Your task to perform on an android device: toggle improve location accuracy Image 0: 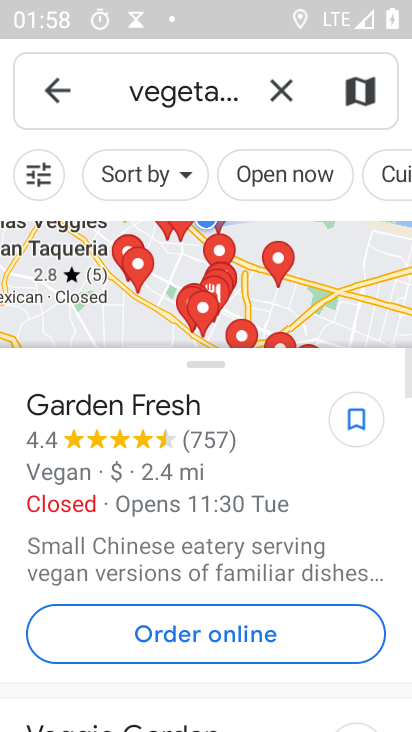
Step 0: press home button
Your task to perform on an android device: toggle improve location accuracy Image 1: 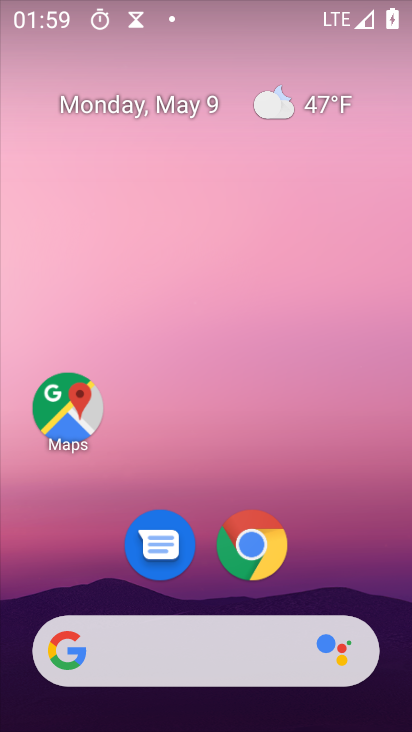
Step 1: drag from (259, 679) to (283, 29)
Your task to perform on an android device: toggle improve location accuracy Image 2: 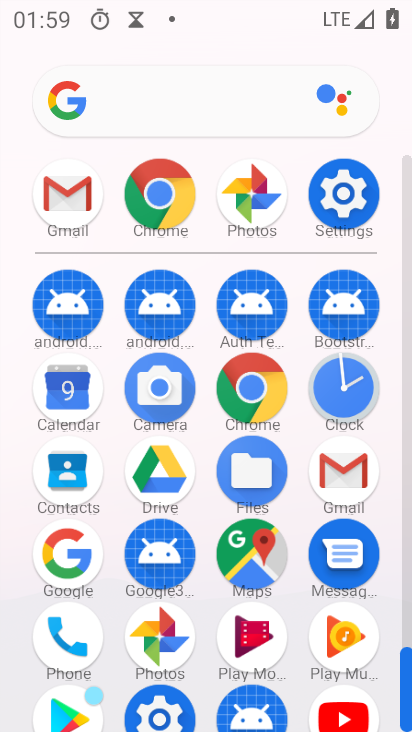
Step 2: click (353, 186)
Your task to perform on an android device: toggle improve location accuracy Image 3: 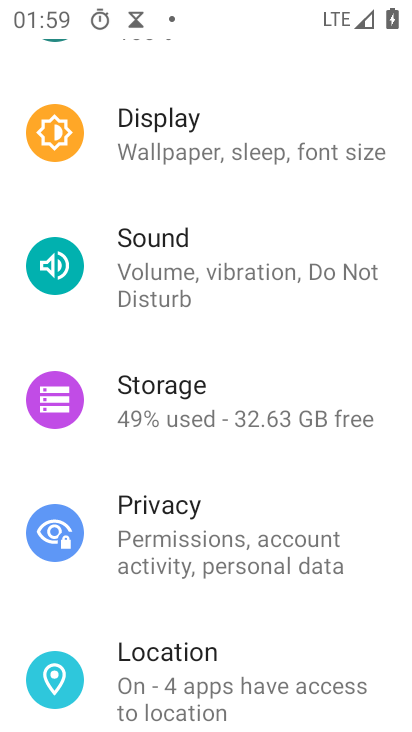
Step 3: click (200, 657)
Your task to perform on an android device: toggle improve location accuracy Image 4: 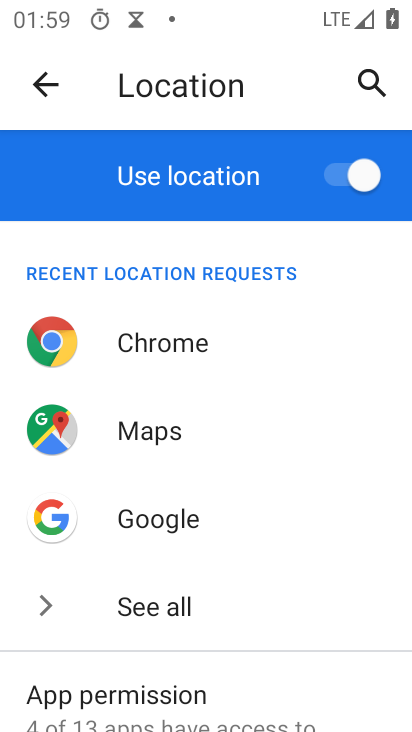
Step 4: drag from (234, 708) to (269, 229)
Your task to perform on an android device: toggle improve location accuracy Image 5: 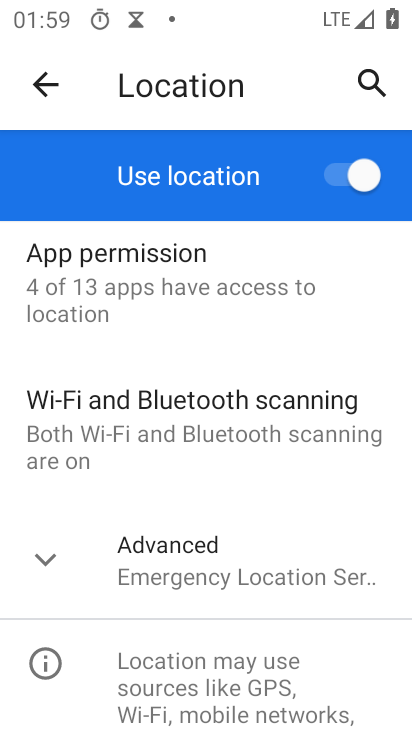
Step 5: click (259, 578)
Your task to perform on an android device: toggle improve location accuracy Image 6: 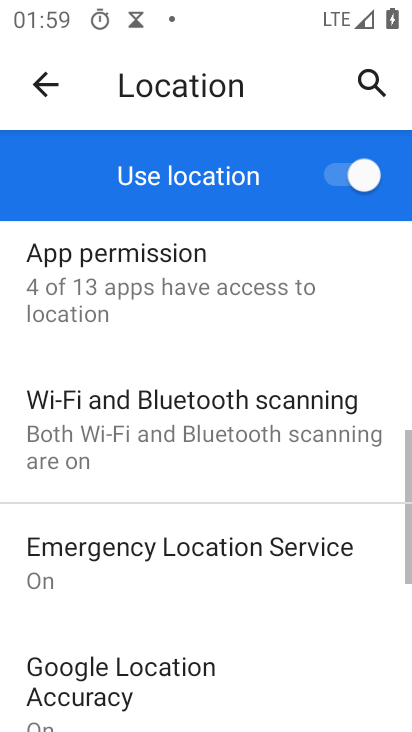
Step 6: drag from (274, 663) to (286, 195)
Your task to perform on an android device: toggle improve location accuracy Image 7: 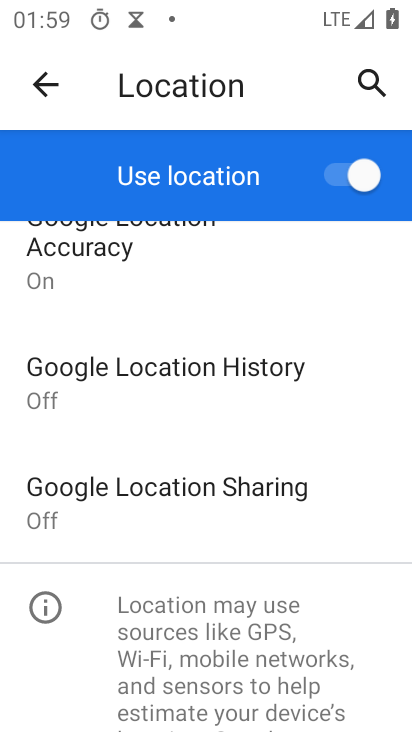
Step 7: click (168, 265)
Your task to perform on an android device: toggle improve location accuracy Image 8: 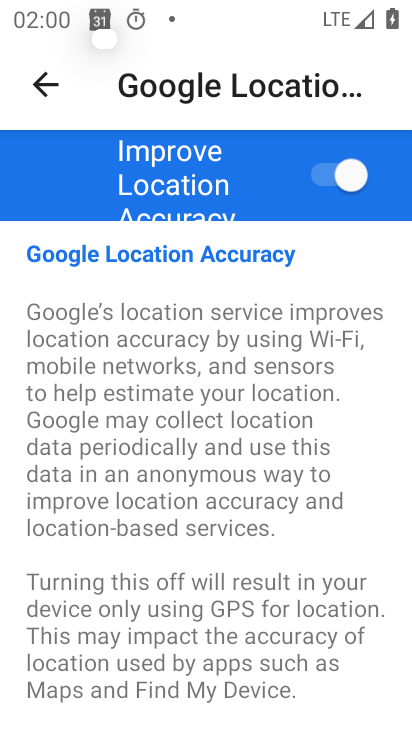
Step 8: click (323, 202)
Your task to perform on an android device: toggle improve location accuracy Image 9: 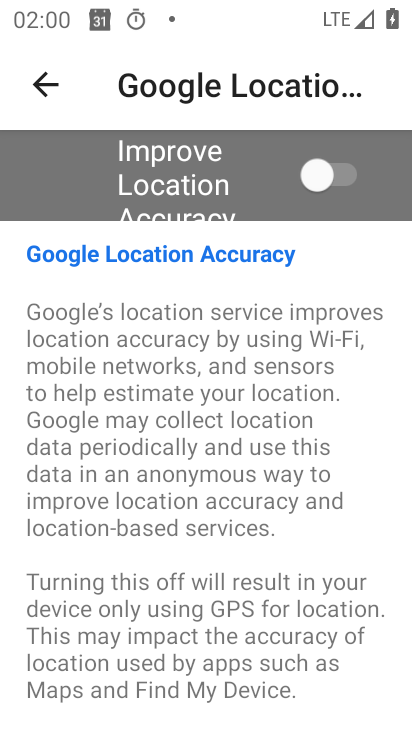
Step 9: task complete